Your task to perform on an android device: Go to Yahoo.com Image 0: 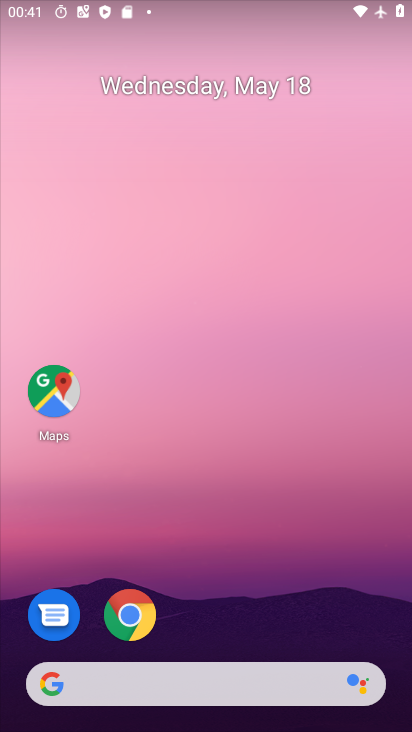
Step 0: drag from (207, 618) to (201, 307)
Your task to perform on an android device: Go to Yahoo.com Image 1: 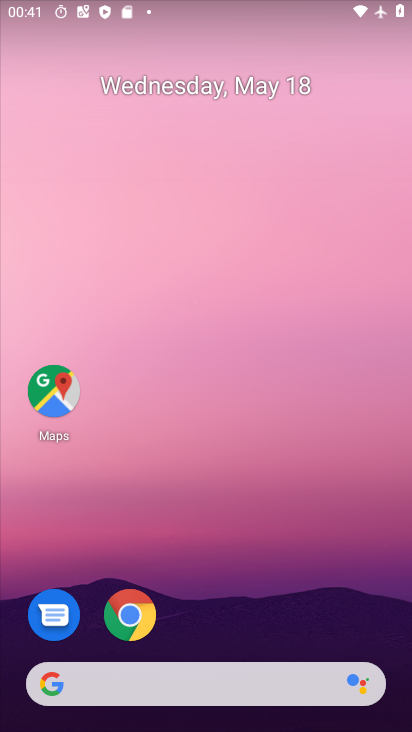
Step 1: click (155, 610)
Your task to perform on an android device: Go to Yahoo.com Image 2: 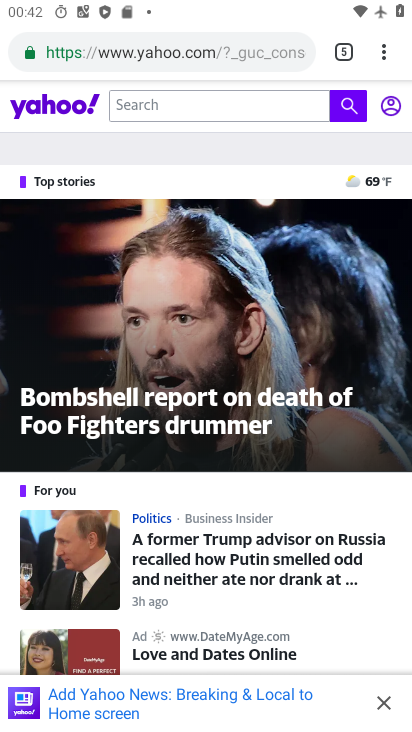
Step 2: task complete